Your task to perform on an android device: toggle translation in the chrome app Image 0: 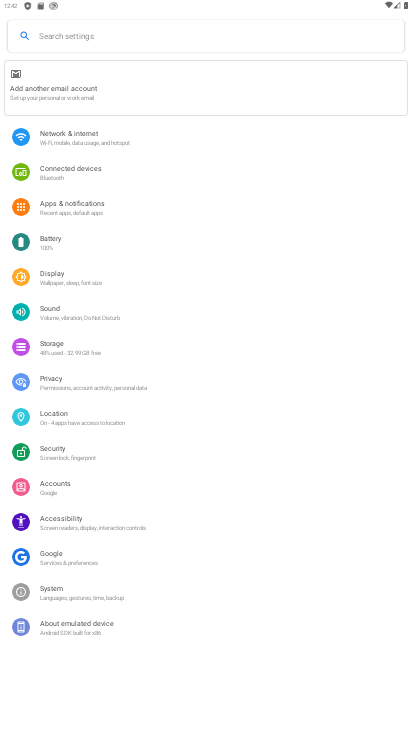
Step 0: press home button
Your task to perform on an android device: toggle translation in the chrome app Image 1: 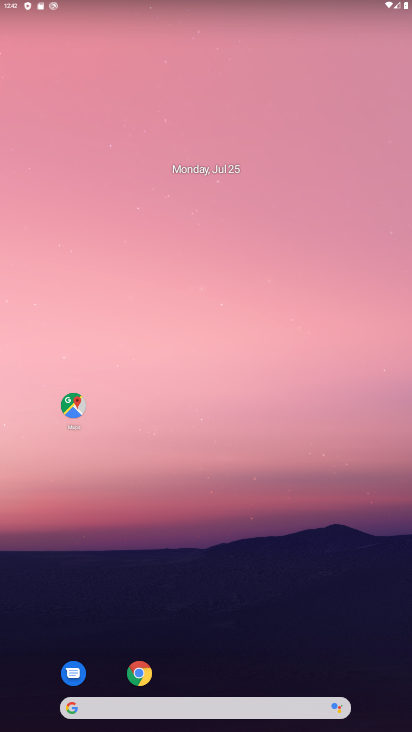
Step 1: click (136, 678)
Your task to perform on an android device: toggle translation in the chrome app Image 2: 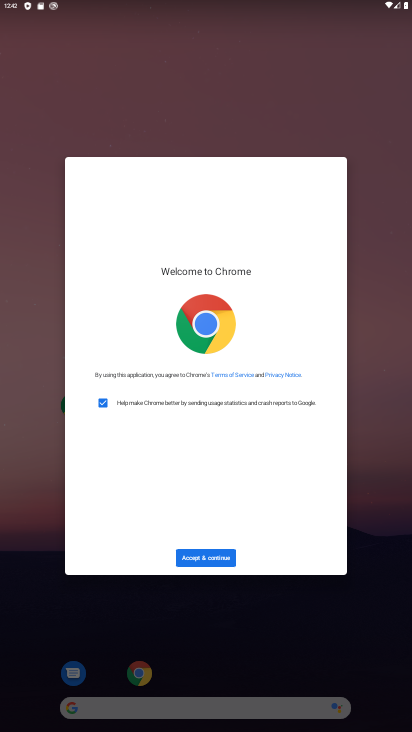
Step 2: click (200, 556)
Your task to perform on an android device: toggle translation in the chrome app Image 3: 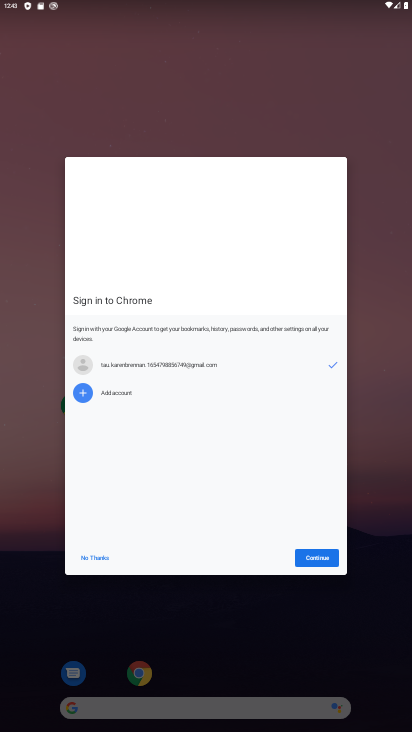
Step 3: click (312, 556)
Your task to perform on an android device: toggle translation in the chrome app Image 4: 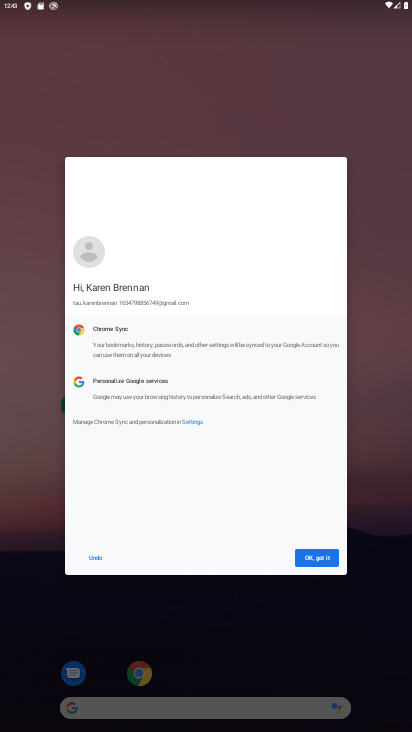
Step 4: click (315, 556)
Your task to perform on an android device: toggle translation in the chrome app Image 5: 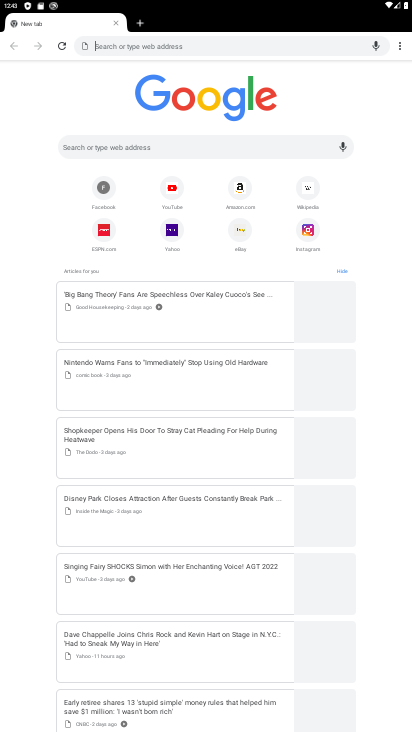
Step 5: click (403, 42)
Your task to perform on an android device: toggle translation in the chrome app Image 6: 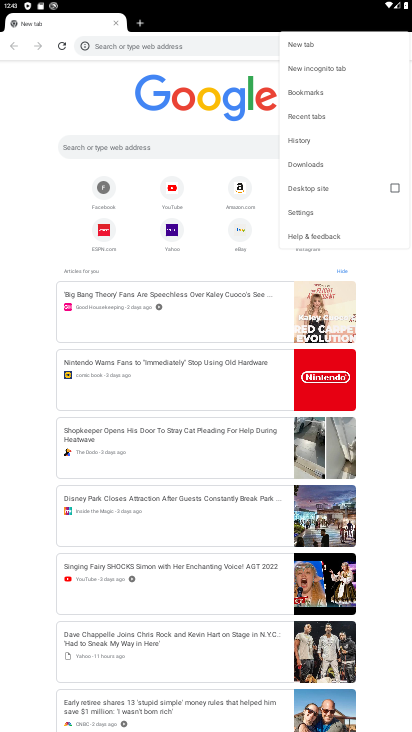
Step 6: click (307, 209)
Your task to perform on an android device: toggle translation in the chrome app Image 7: 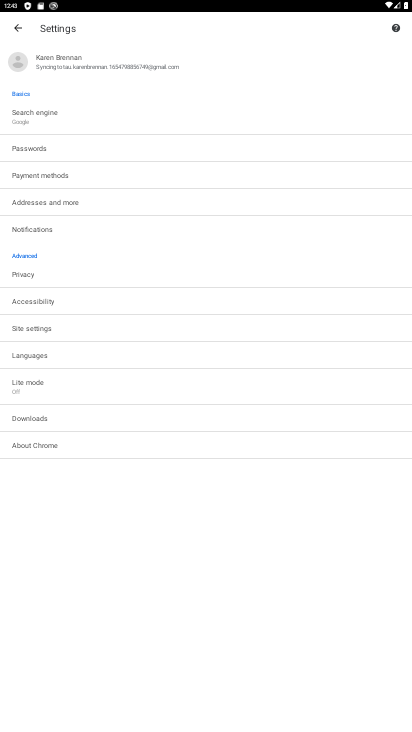
Step 7: click (13, 355)
Your task to perform on an android device: toggle translation in the chrome app Image 8: 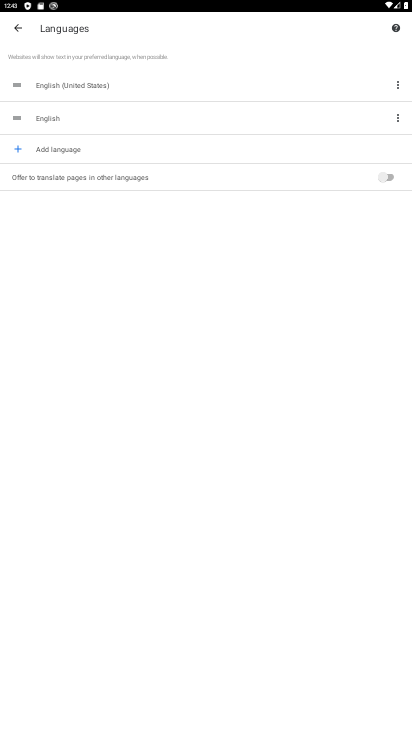
Step 8: click (384, 181)
Your task to perform on an android device: toggle translation in the chrome app Image 9: 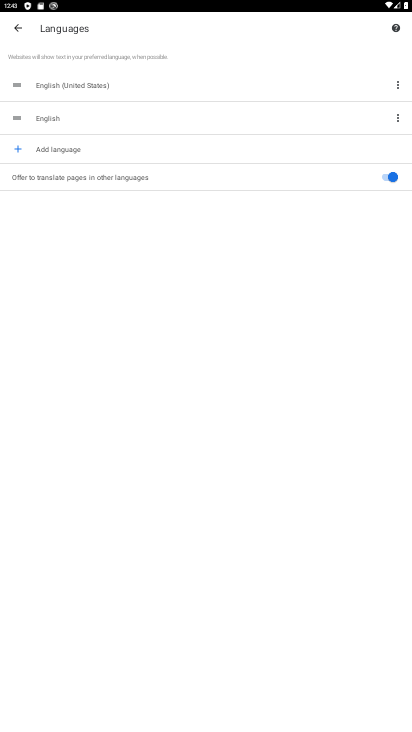
Step 9: task complete